Your task to perform on an android device: open sync settings in chrome Image 0: 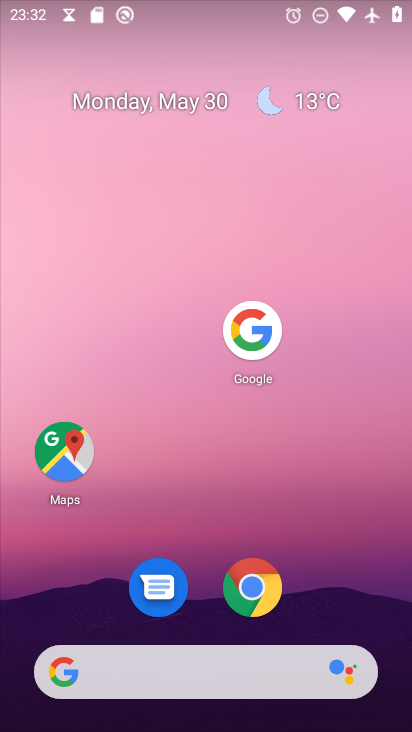
Step 0: press home button
Your task to perform on an android device: open sync settings in chrome Image 1: 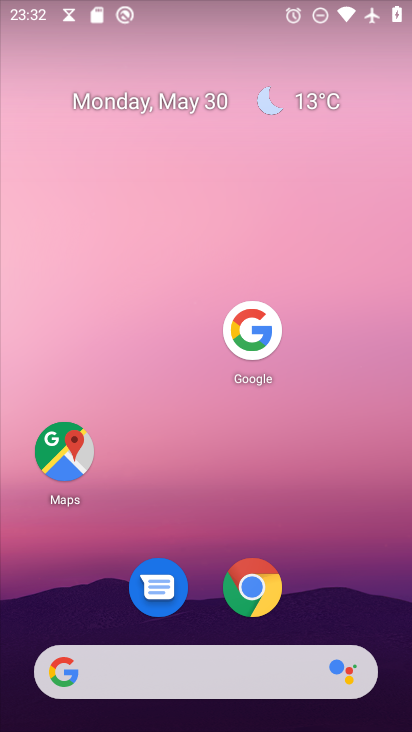
Step 1: click (246, 587)
Your task to perform on an android device: open sync settings in chrome Image 2: 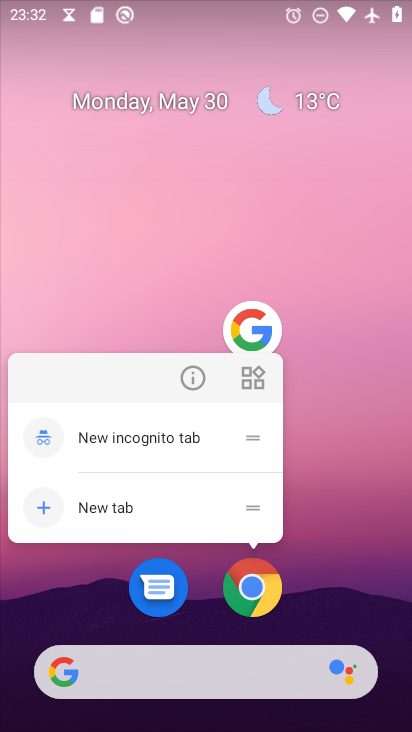
Step 2: click (253, 582)
Your task to perform on an android device: open sync settings in chrome Image 3: 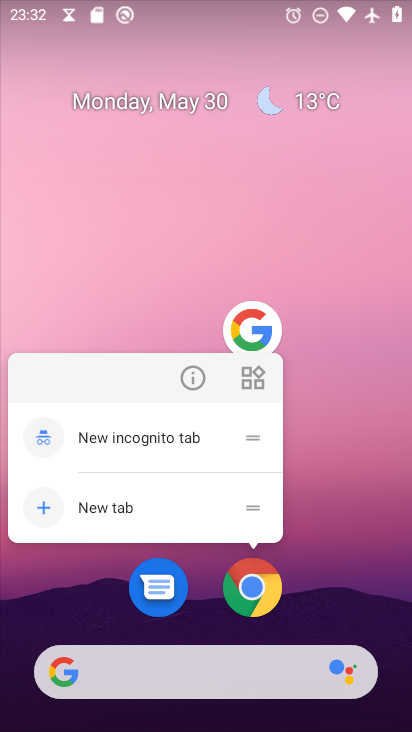
Step 3: click (253, 582)
Your task to perform on an android device: open sync settings in chrome Image 4: 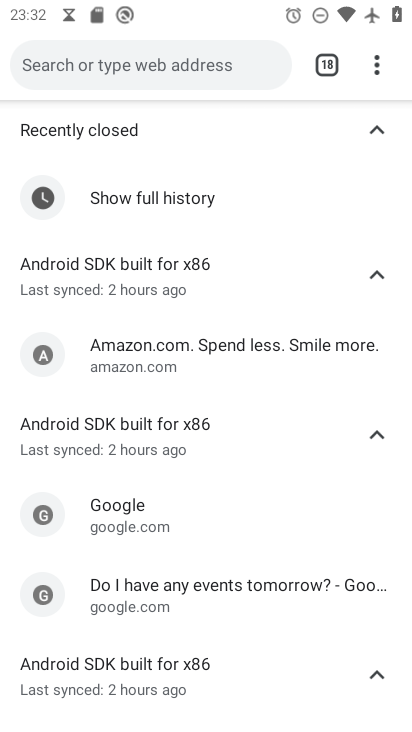
Step 4: drag from (376, 72) to (197, 552)
Your task to perform on an android device: open sync settings in chrome Image 5: 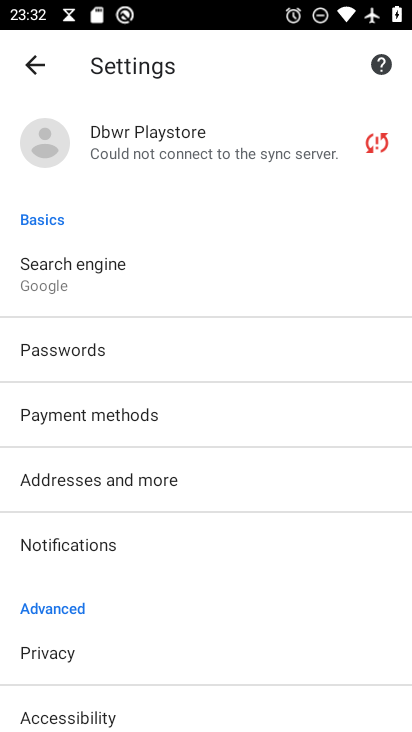
Step 5: click (216, 159)
Your task to perform on an android device: open sync settings in chrome Image 6: 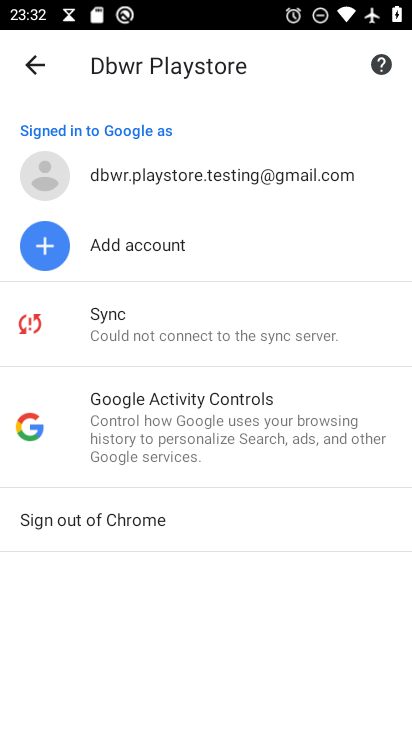
Step 6: click (132, 318)
Your task to perform on an android device: open sync settings in chrome Image 7: 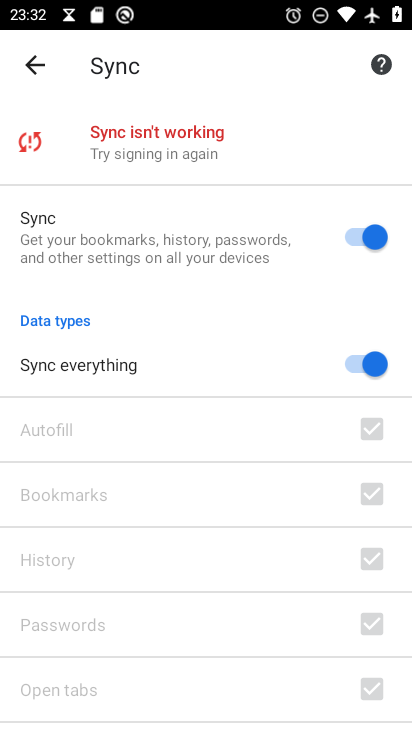
Step 7: click (212, 149)
Your task to perform on an android device: open sync settings in chrome Image 8: 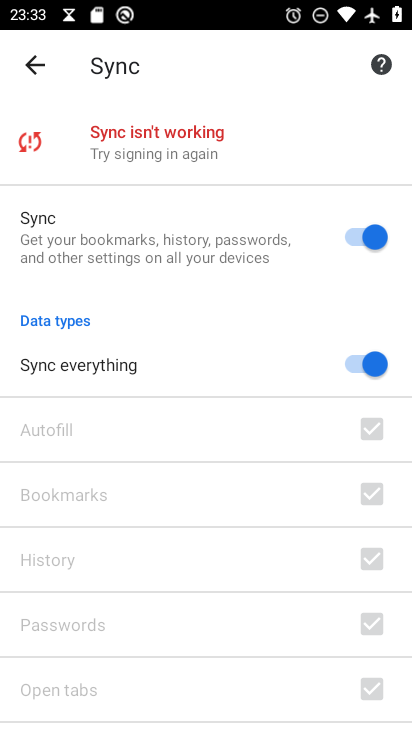
Step 8: task complete